Your task to perform on an android device: turn on showing notifications on the lock screen Image 0: 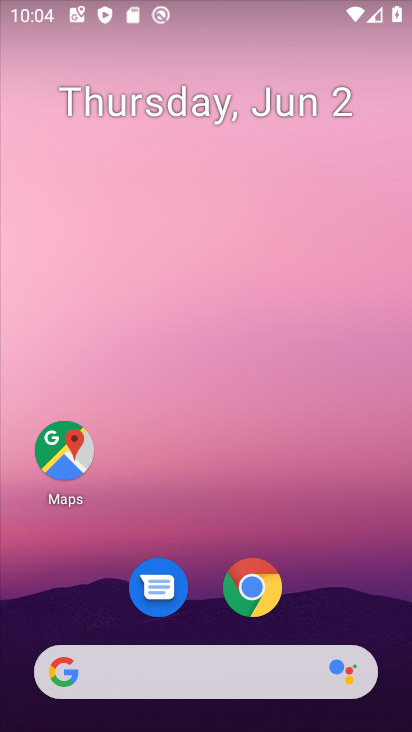
Step 0: drag from (341, 600) to (337, 254)
Your task to perform on an android device: turn on showing notifications on the lock screen Image 1: 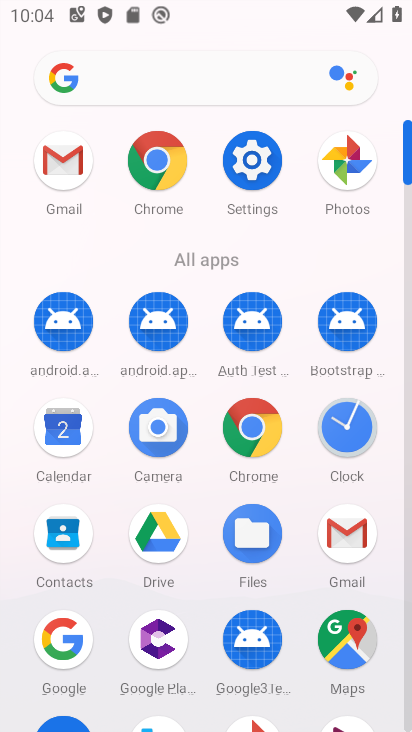
Step 1: click (265, 165)
Your task to perform on an android device: turn on showing notifications on the lock screen Image 2: 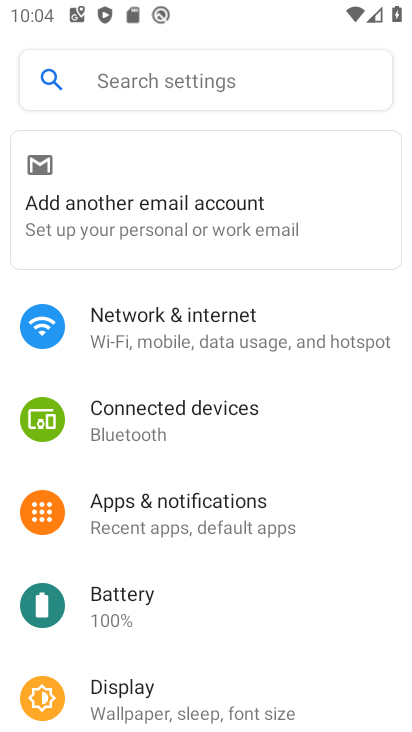
Step 2: drag from (264, 167) to (269, 82)
Your task to perform on an android device: turn on showing notifications on the lock screen Image 3: 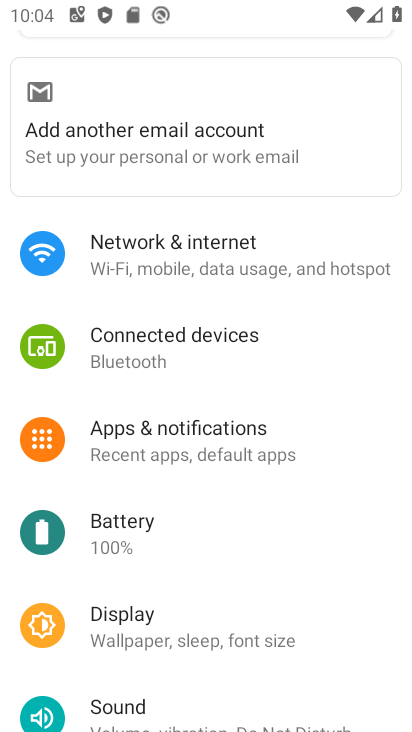
Step 3: click (266, 87)
Your task to perform on an android device: turn on showing notifications on the lock screen Image 4: 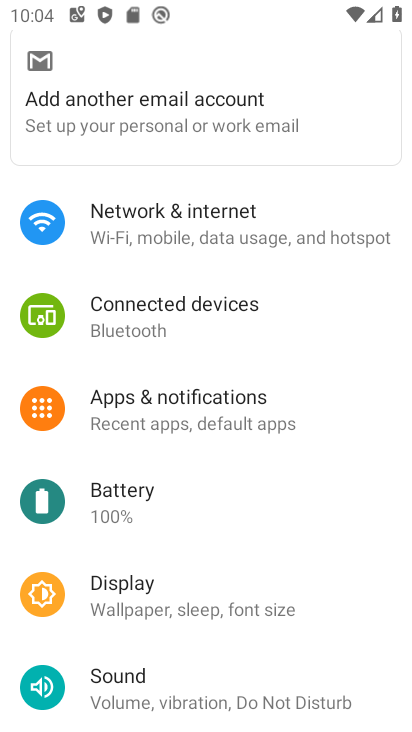
Step 4: drag from (240, 506) to (243, 373)
Your task to perform on an android device: turn on showing notifications on the lock screen Image 5: 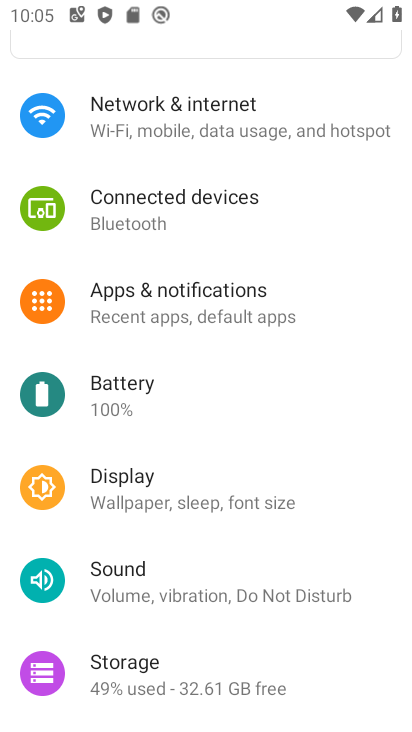
Step 5: click (177, 320)
Your task to perform on an android device: turn on showing notifications on the lock screen Image 6: 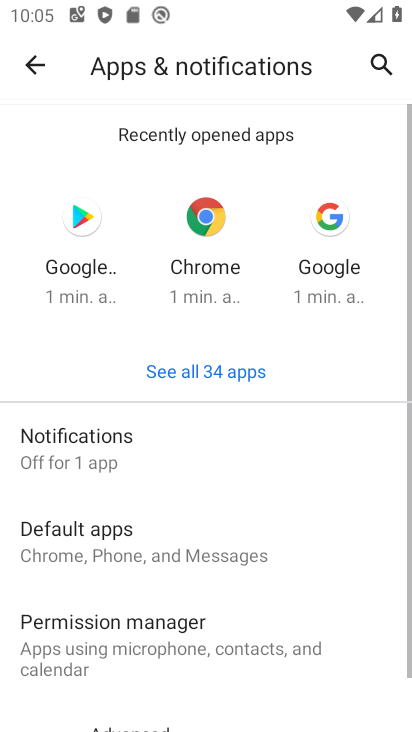
Step 6: drag from (177, 320) to (208, 206)
Your task to perform on an android device: turn on showing notifications on the lock screen Image 7: 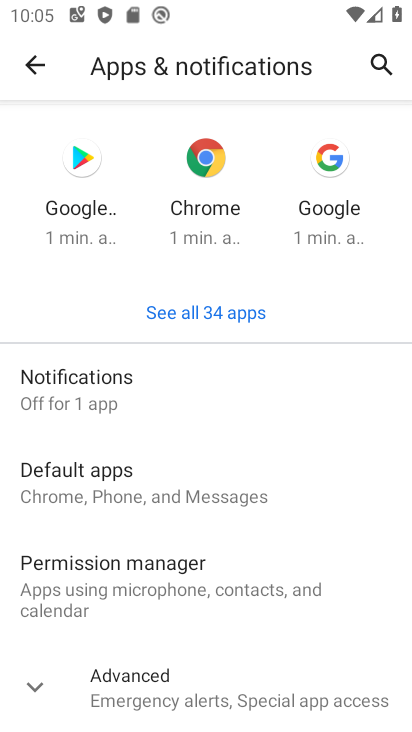
Step 7: click (208, 206)
Your task to perform on an android device: turn on showing notifications on the lock screen Image 8: 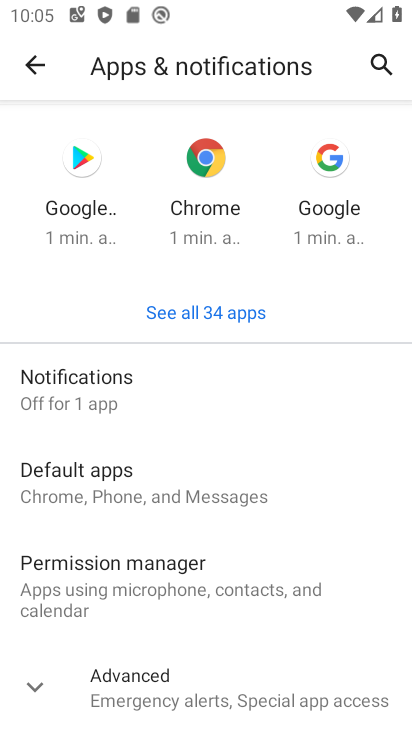
Step 8: click (186, 384)
Your task to perform on an android device: turn on showing notifications on the lock screen Image 9: 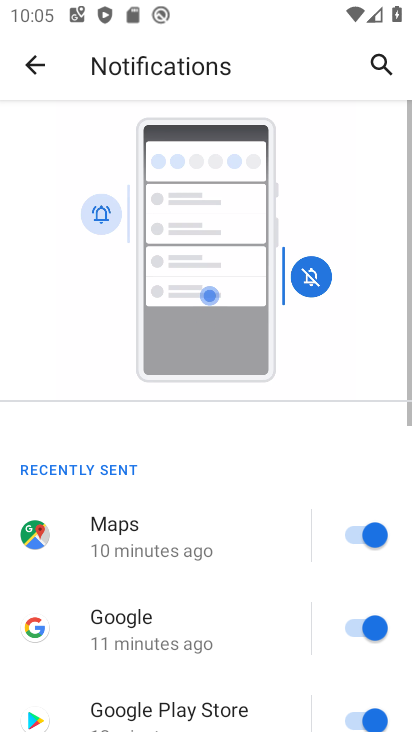
Step 9: drag from (194, 522) to (236, 114)
Your task to perform on an android device: turn on showing notifications on the lock screen Image 10: 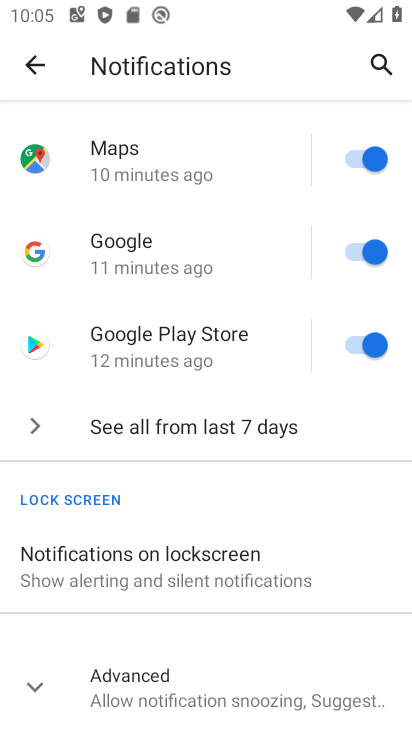
Step 10: drag from (206, 604) to (214, 360)
Your task to perform on an android device: turn on showing notifications on the lock screen Image 11: 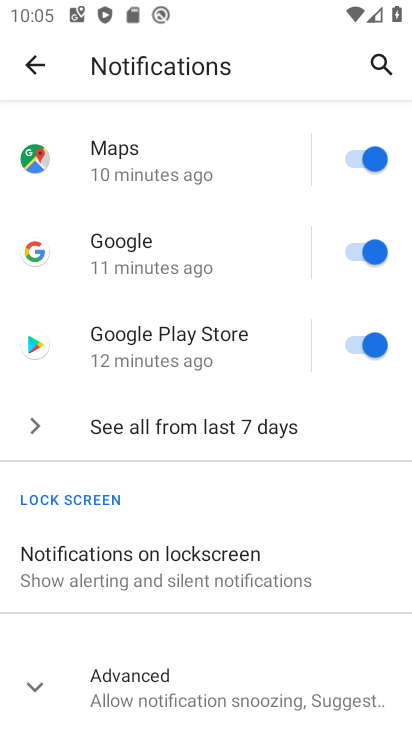
Step 11: click (213, 560)
Your task to perform on an android device: turn on showing notifications on the lock screen Image 12: 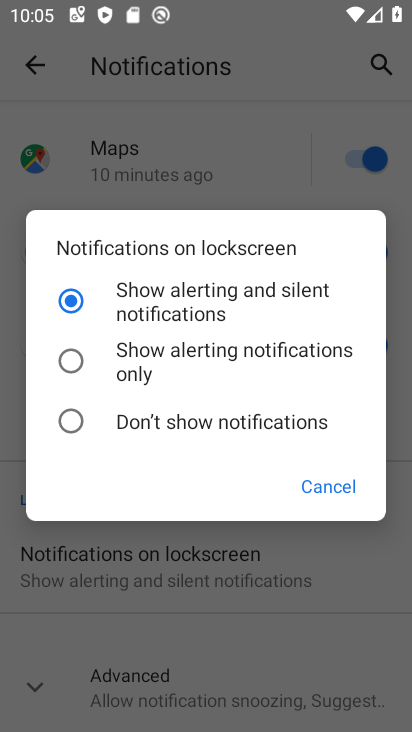
Step 12: task complete